Your task to perform on an android device: Go to internet settings Image 0: 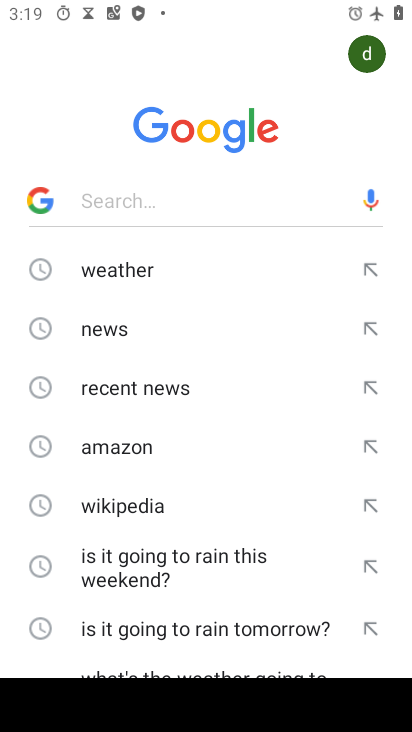
Step 0: press back button
Your task to perform on an android device: Go to internet settings Image 1: 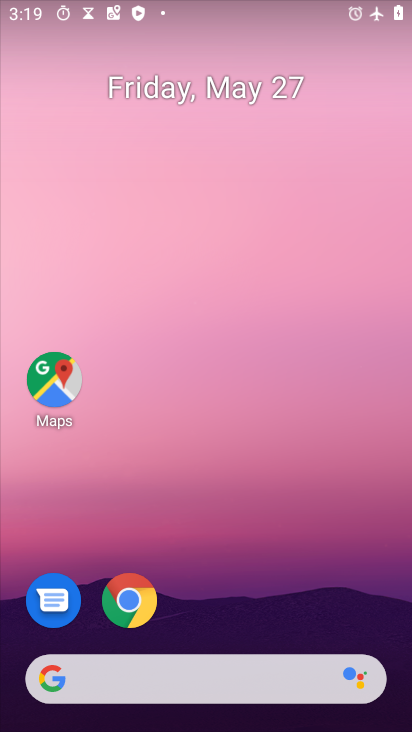
Step 1: drag from (363, 536) to (241, 20)
Your task to perform on an android device: Go to internet settings Image 2: 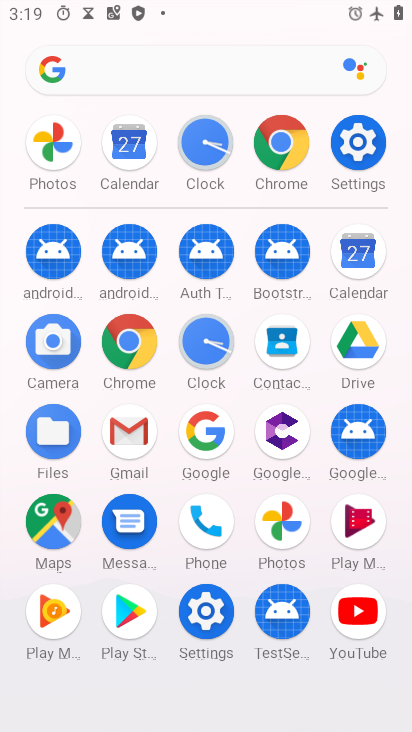
Step 2: drag from (13, 570) to (12, 244)
Your task to perform on an android device: Go to internet settings Image 3: 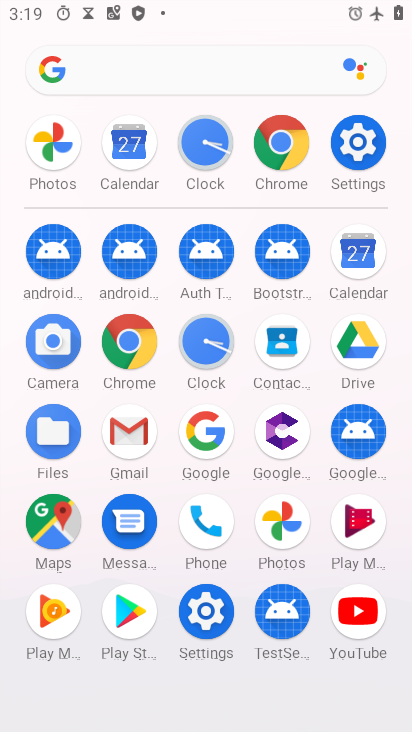
Step 3: click (204, 604)
Your task to perform on an android device: Go to internet settings Image 4: 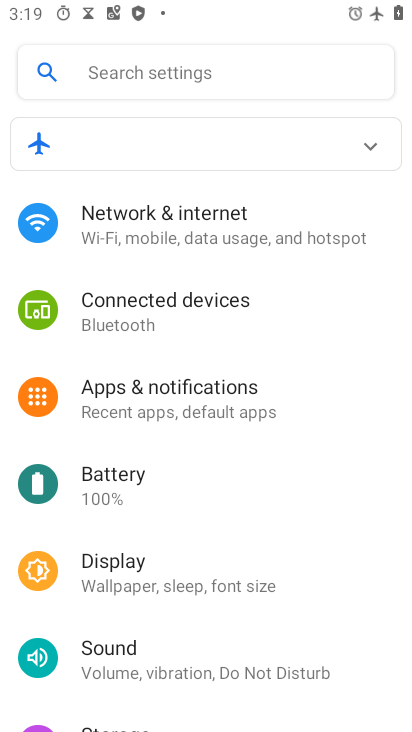
Step 4: click (172, 216)
Your task to perform on an android device: Go to internet settings Image 5: 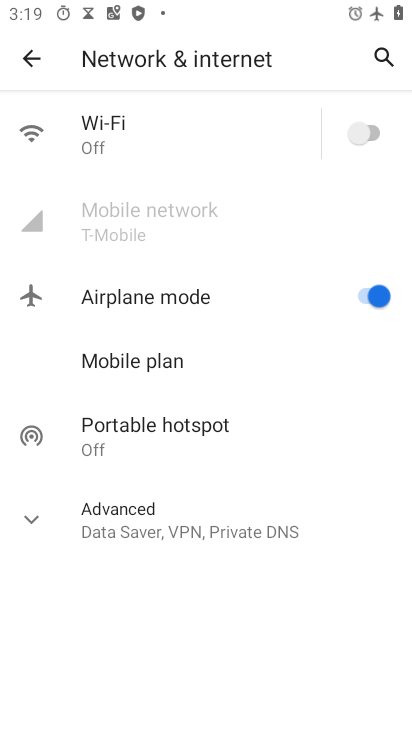
Step 5: click (71, 533)
Your task to perform on an android device: Go to internet settings Image 6: 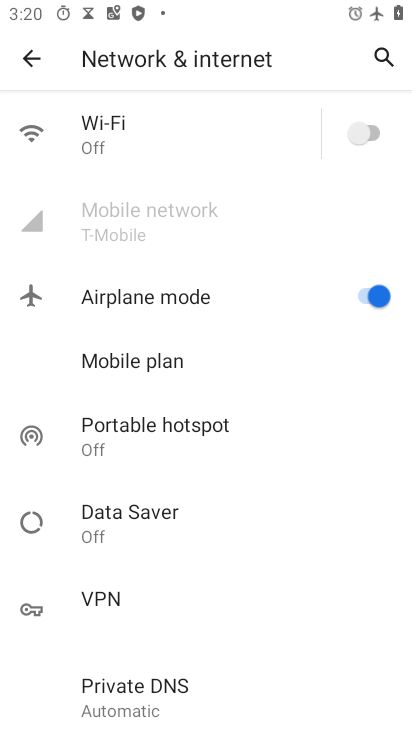
Step 6: task complete